Your task to perform on an android device: install app "Google Photos" Image 0: 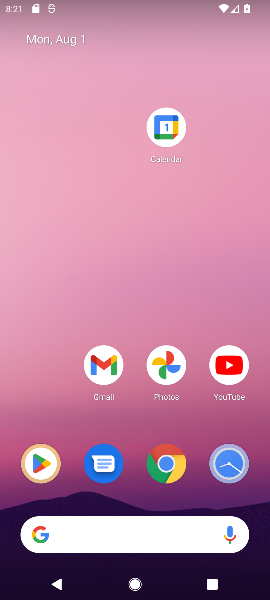
Step 0: click (173, 365)
Your task to perform on an android device: install app "Google Photos" Image 1: 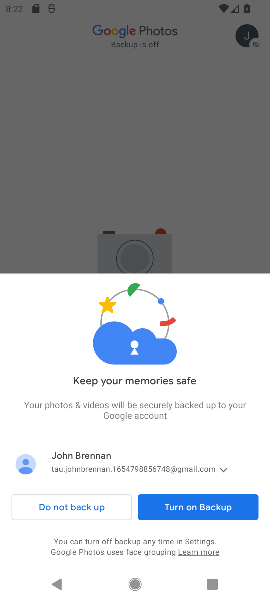
Step 1: click (78, 512)
Your task to perform on an android device: install app "Google Photos" Image 2: 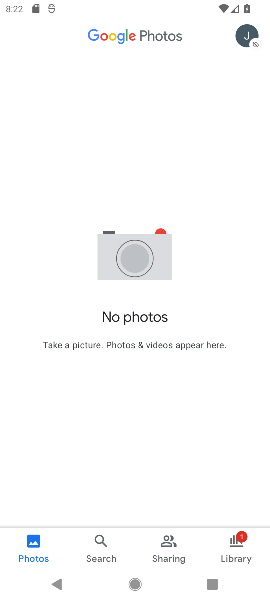
Step 2: task complete